Your task to perform on an android device: open app "Messages" Image 0: 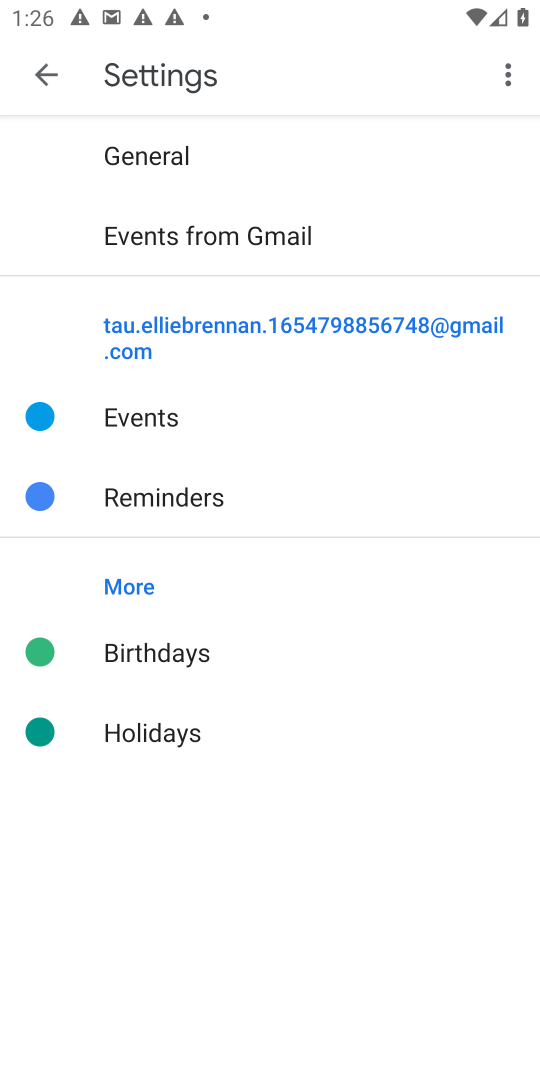
Step 0: press home button
Your task to perform on an android device: open app "Messages" Image 1: 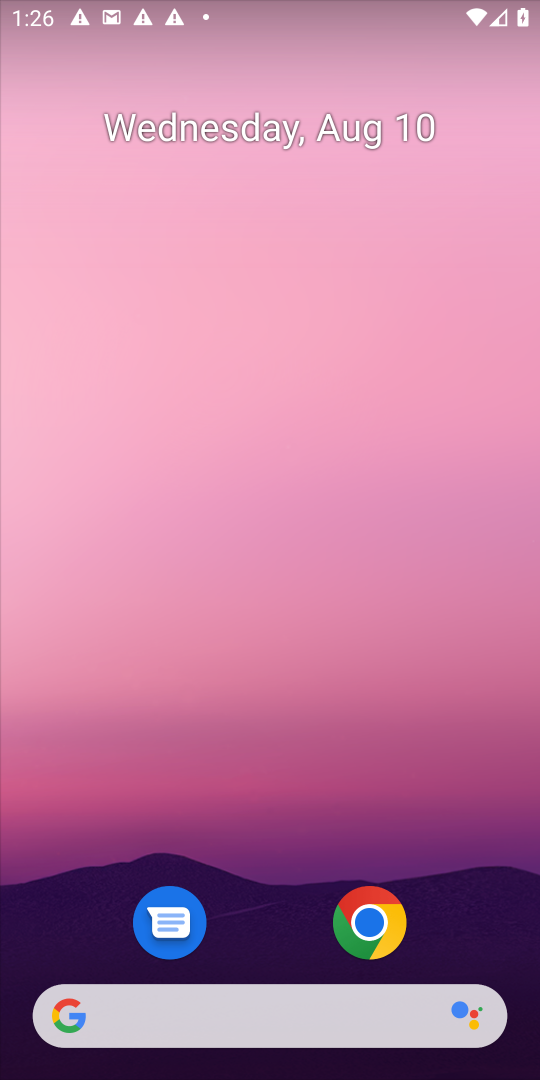
Step 1: drag from (269, 905) to (269, 60)
Your task to perform on an android device: open app "Messages" Image 2: 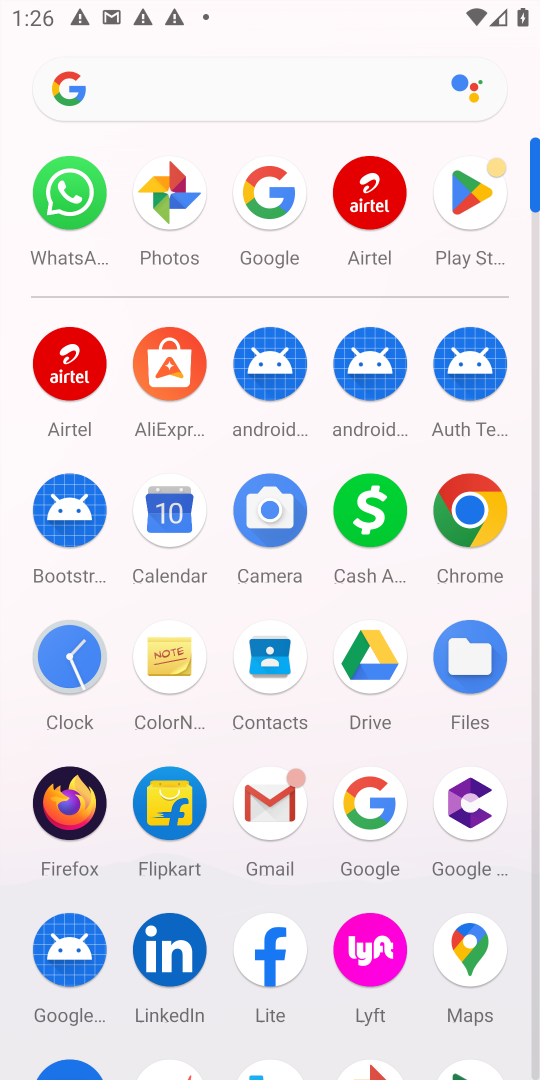
Step 2: click (470, 208)
Your task to perform on an android device: open app "Messages" Image 3: 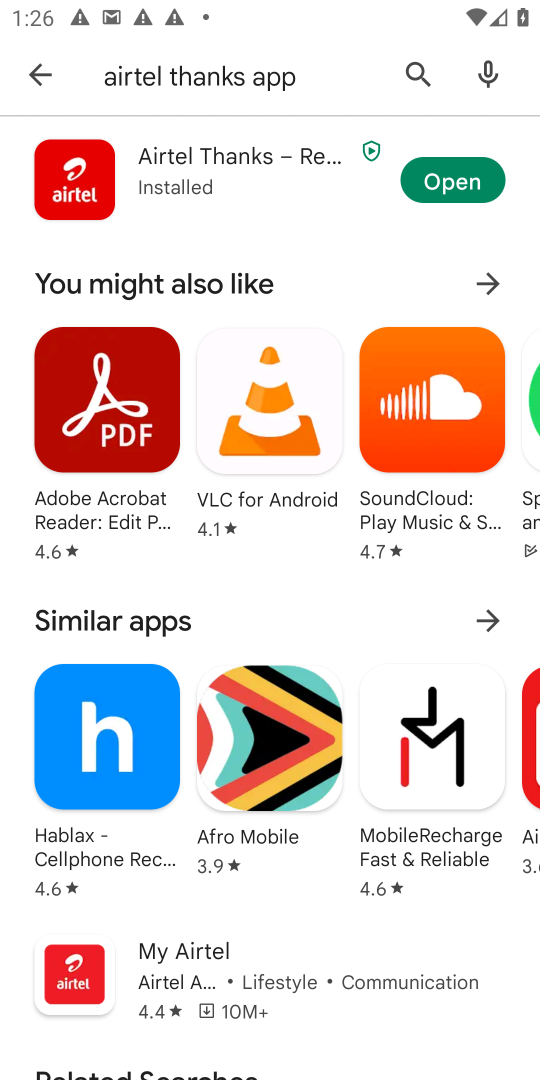
Step 3: click (40, 81)
Your task to perform on an android device: open app "Messages" Image 4: 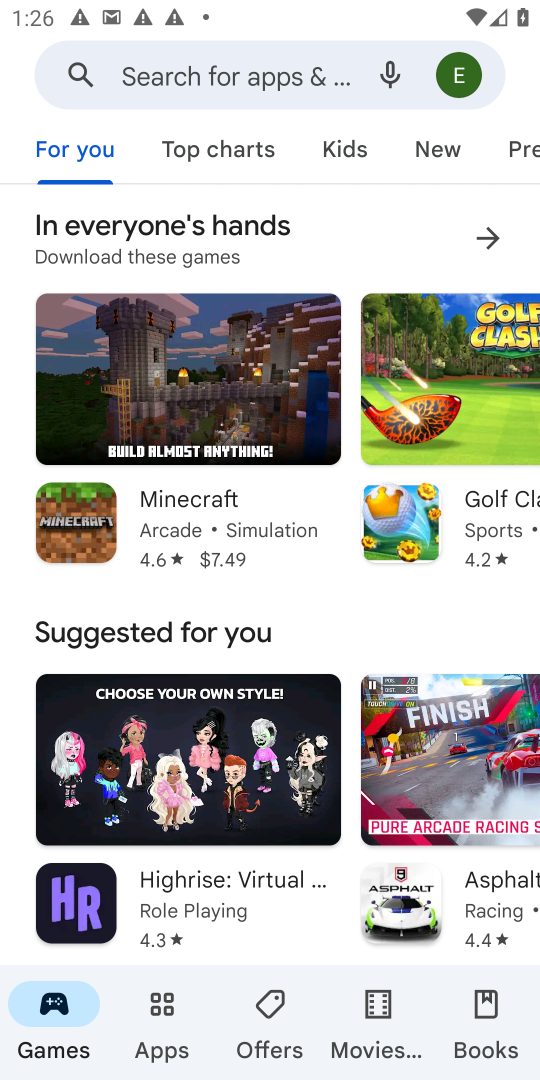
Step 4: click (205, 61)
Your task to perform on an android device: open app "Messages" Image 5: 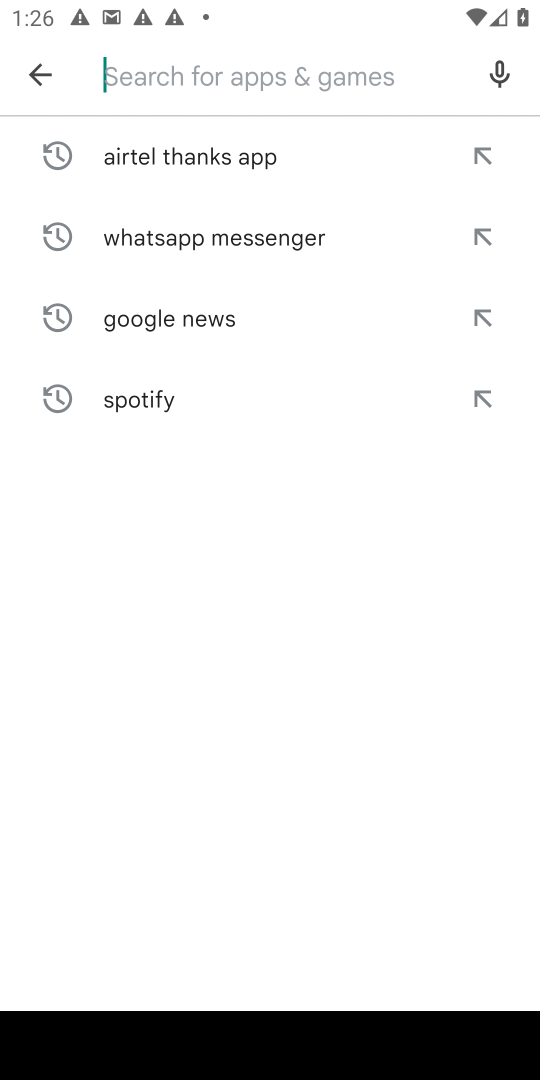
Step 5: type "Messages"
Your task to perform on an android device: open app "Messages" Image 6: 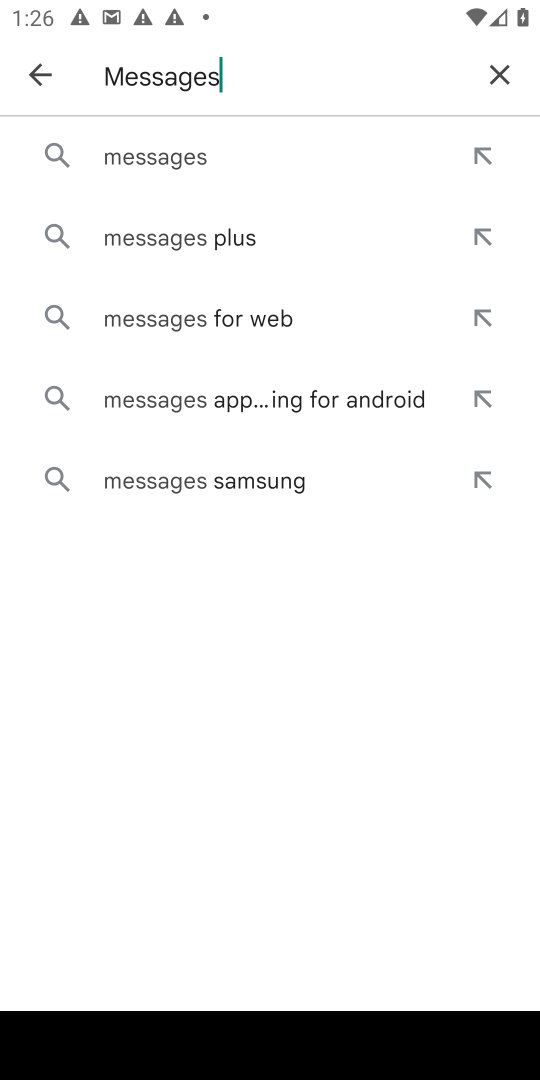
Step 6: click (144, 153)
Your task to perform on an android device: open app "Messages" Image 7: 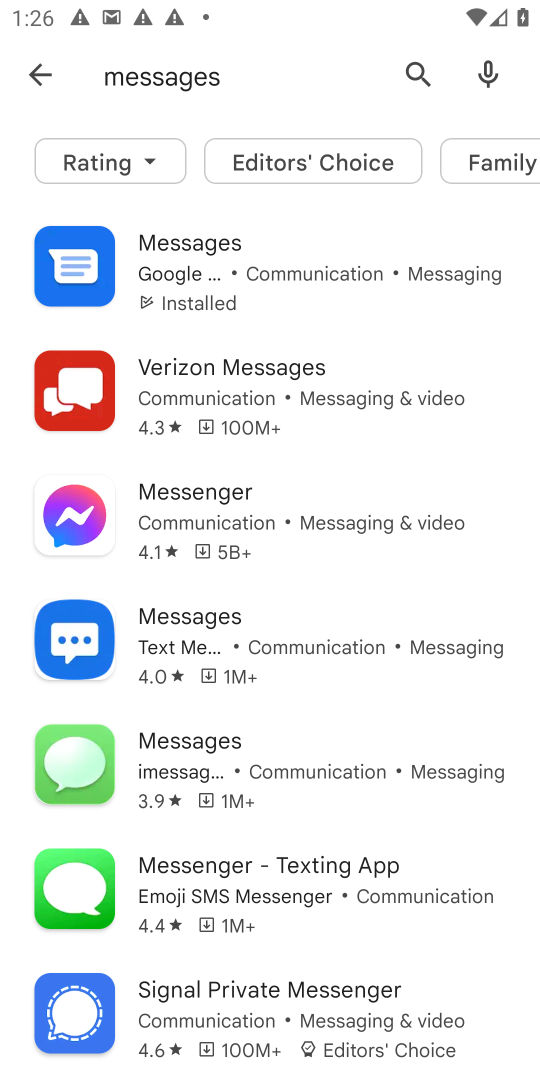
Step 7: click (191, 282)
Your task to perform on an android device: open app "Messages" Image 8: 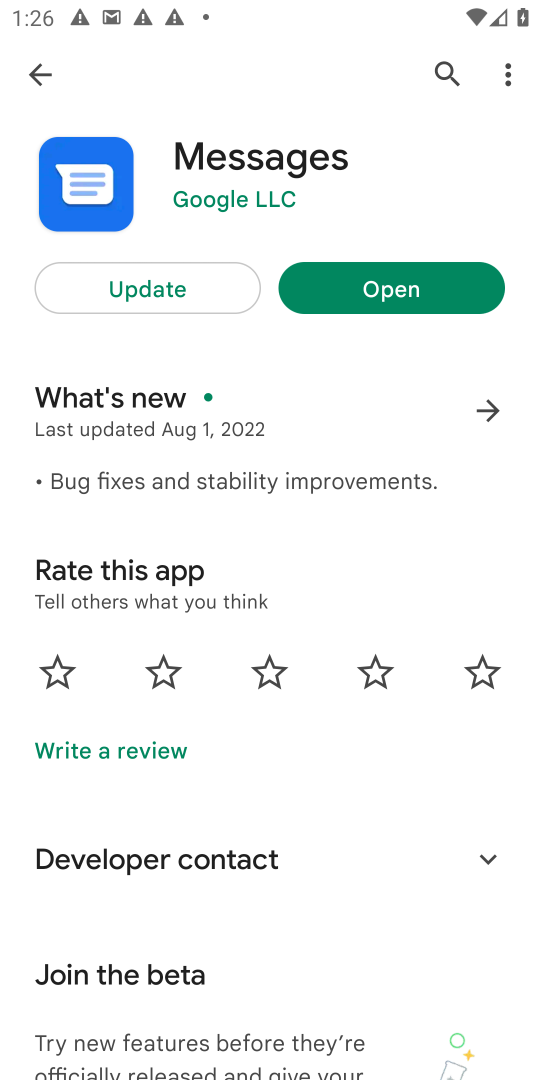
Step 8: click (413, 290)
Your task to perform on an android device: open app "Messages" Image 9: 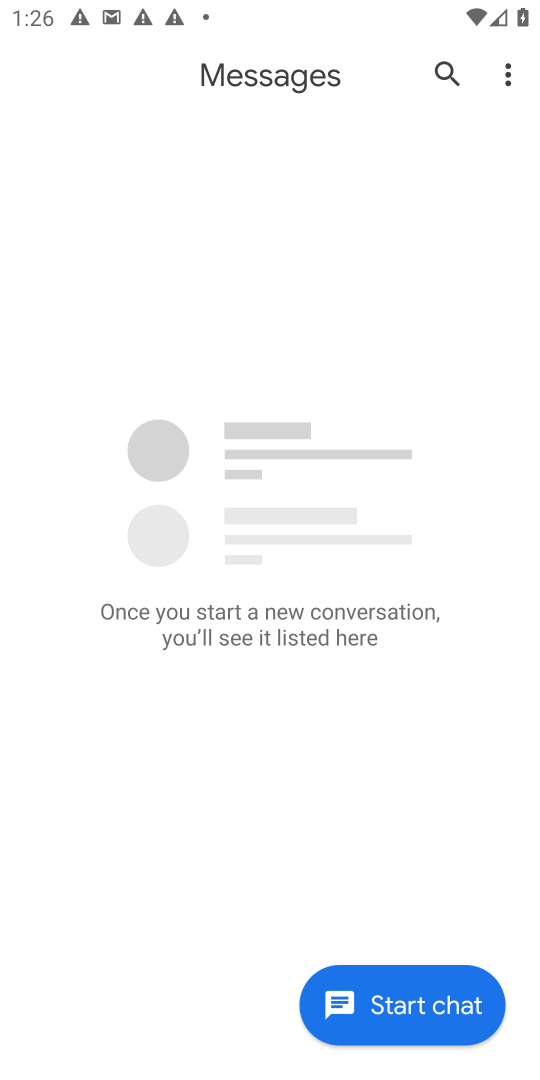
Step 9: task complete